Your task to perform on an android device: Go to Maps Image 0: 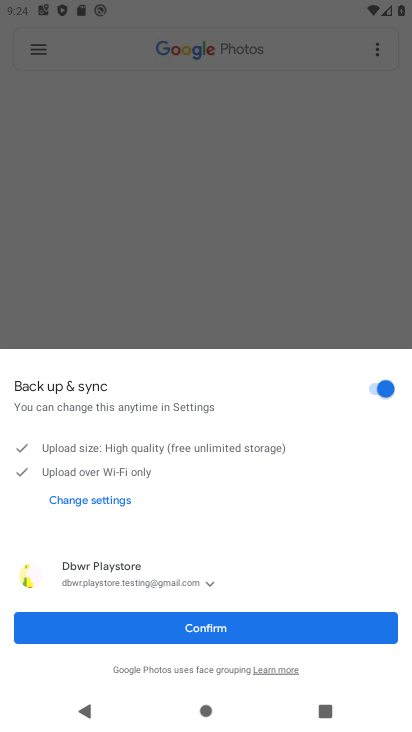
Step 0: press back button
Your task to perform on an android device: Go to Maps Image 1: 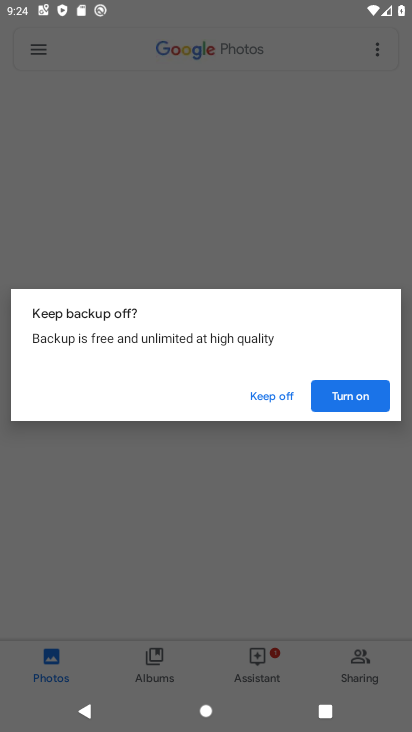
Step 1: press home button
Your task to perform on an android device: Go to Maps Image 2: 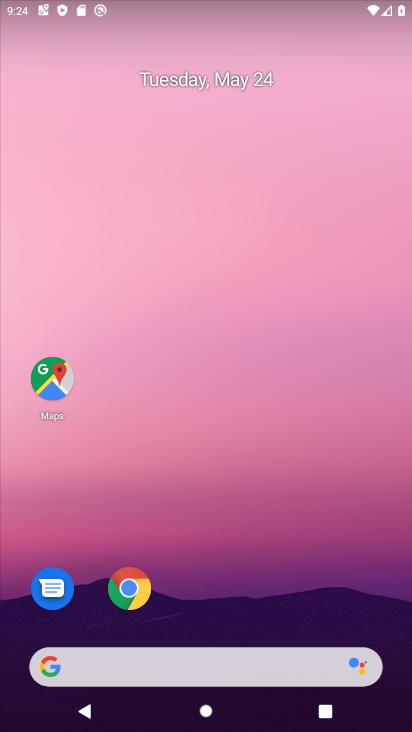
Step 2: drag from (263, 577) to (247, 21)
Your task to perform on an android device: Go to Maps Image 3: 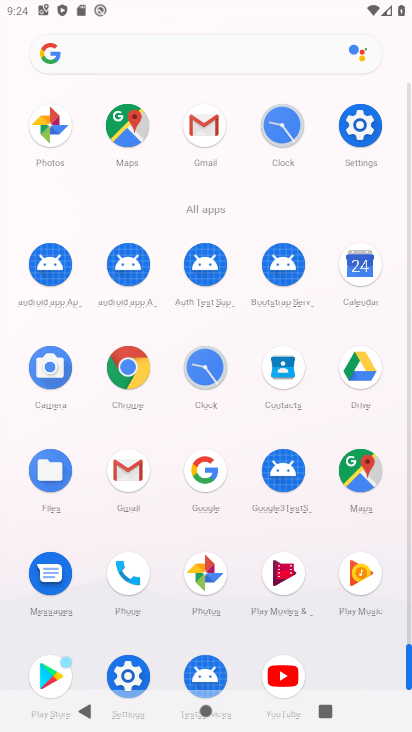
Step 3: click (125, 122)
Your task to perform on an android device: Go to Maps Image 4: 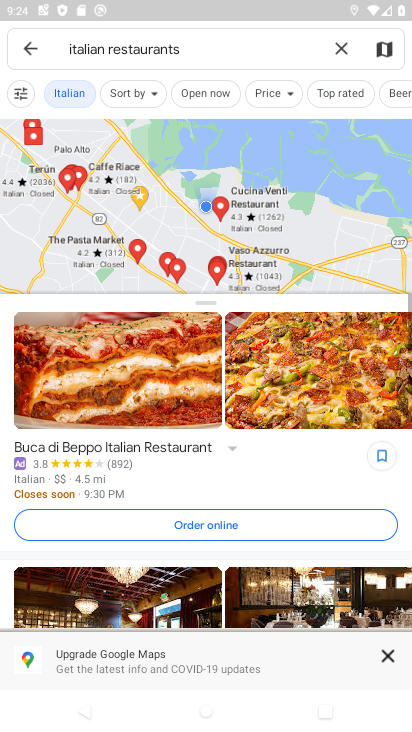
Step 4: click (28, 51)
Your task to perform on an android device: Go to Maps Image 5: 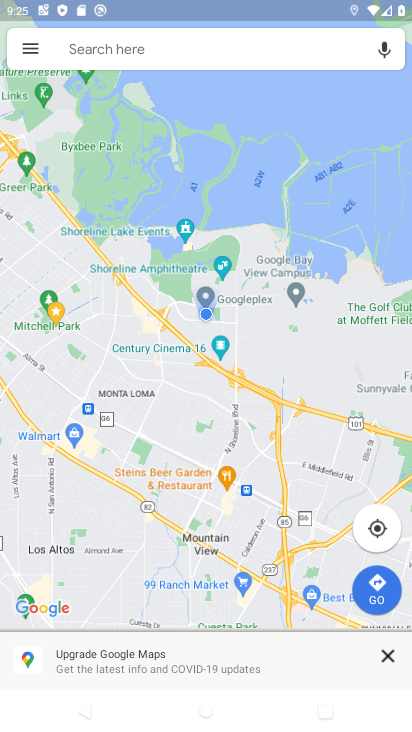
Step 5: task complete